Your task to perform on an android device: What is the news today? Image 0: 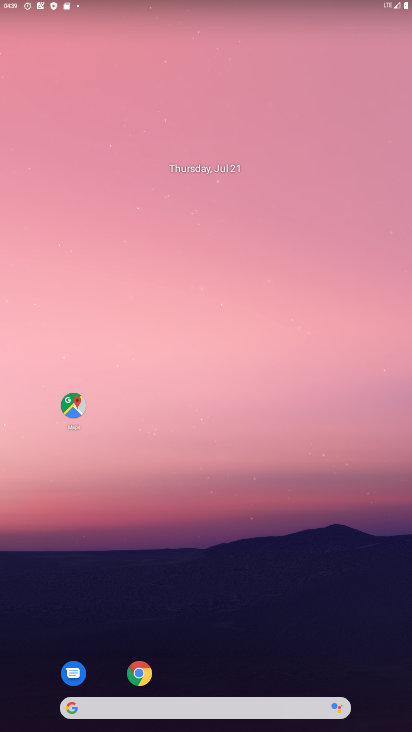
Step 0: drag from (242, 630) to (155, 39)
Your task to perform on an android device: What is the news today? Image 1: 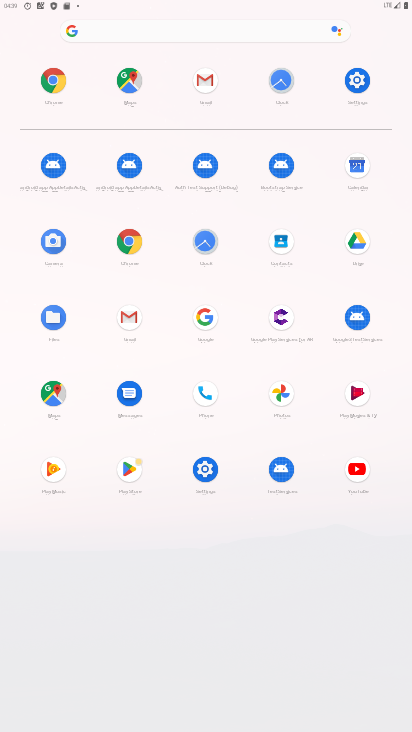
Step 1: click (124, 245)
Your task to perform on an android device: What is the news today? Image 2: 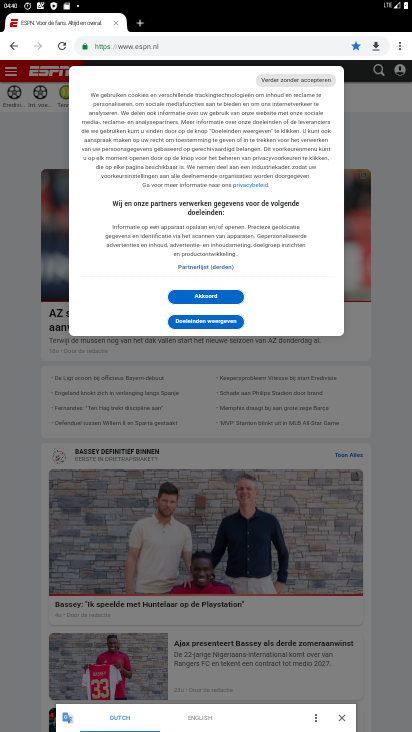
Step 2: click (172, 48)
Your task to perform on an android device: What is the news today? Image 3: 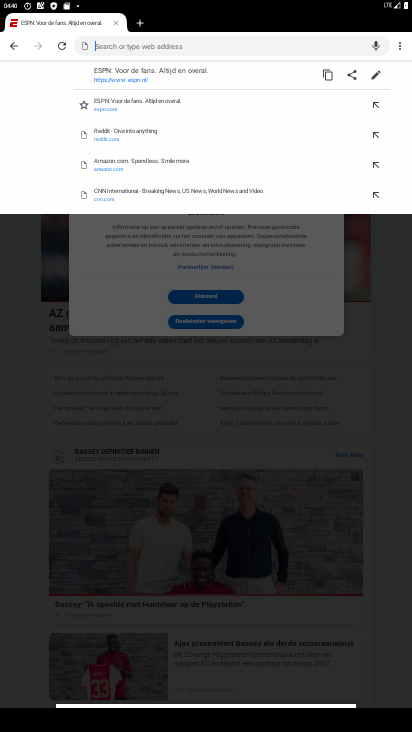
Step 3: type "news"
Your task to perform on an android device: What is the news today? Image 4: 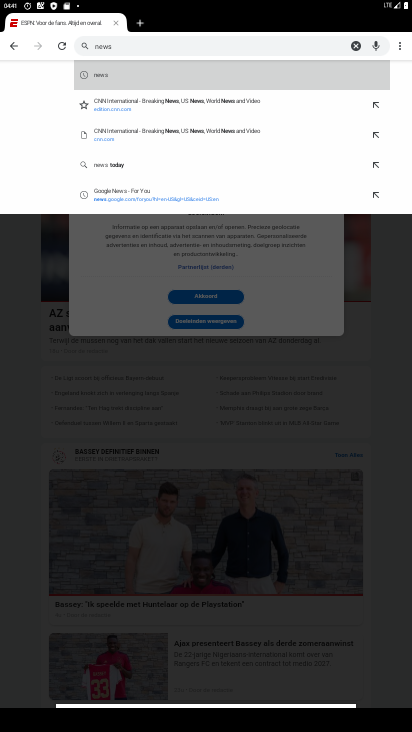
Step 4: click (198, 73)
Your task to perform on an android device: What is the news today? Image 5: 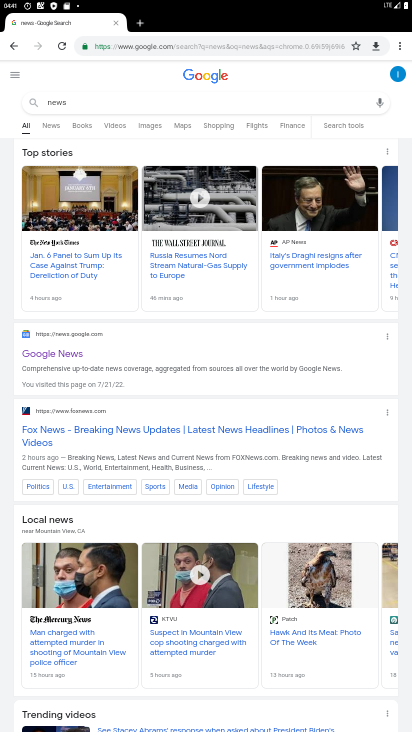
Step 5: click (49, 354)
Your task to perform on an android device: What is the news today? Image 6: 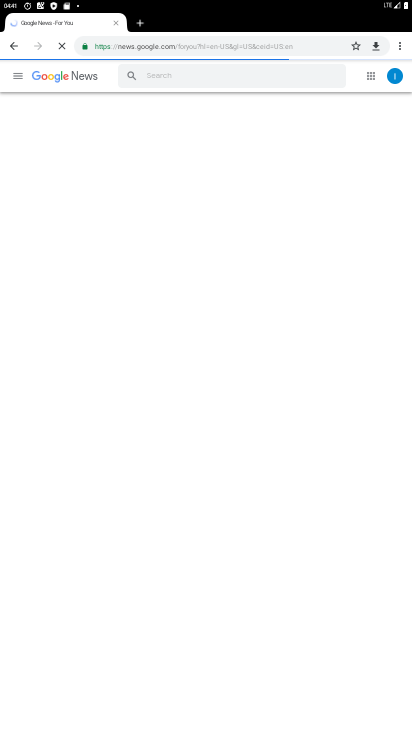
Step 6: click (70, 356)
Your task to perform on an android device: What is the news today? Image 7: 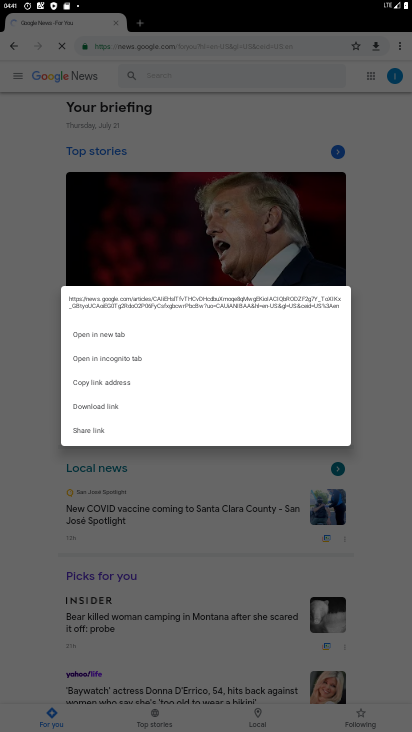
Step 7: click (266, 490)
Your task to perform on an android device: What is the news today? Image 8: 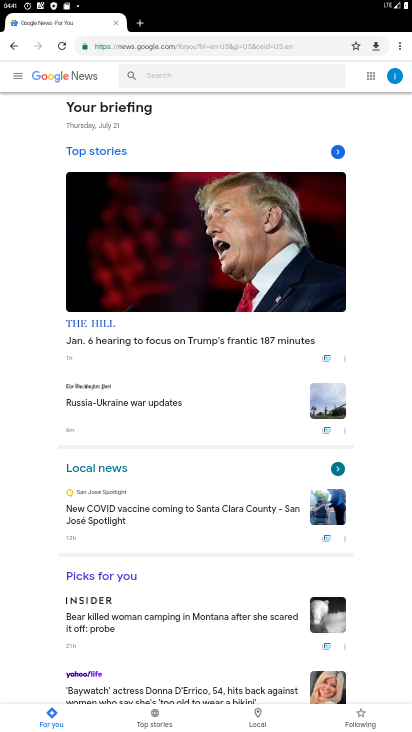
Step 8: task complete